Your task to perform on an android device: turn off javascript in the chrome app Image 0: 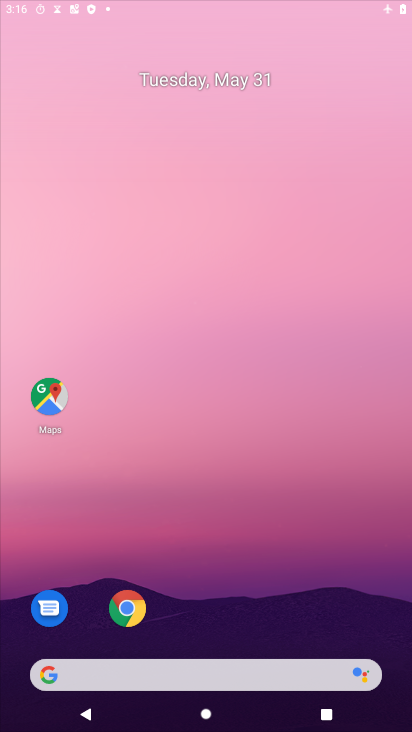
Step 0: click (401, 224)
Your task to perform on an android device: turn off javascript in the chrome app Image 1: 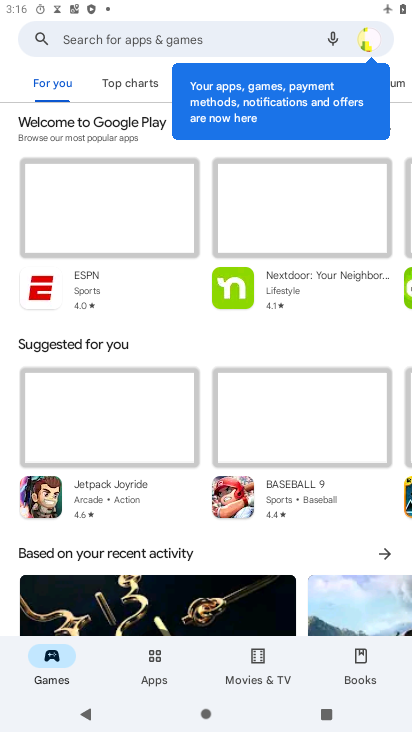
Step 1: press home button
Your task to perform on an android device: turn off javascript in the chrome app Image 2: 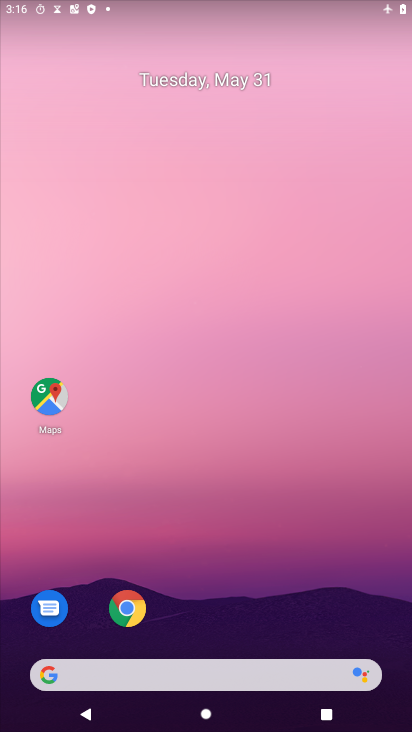
Step 2: drag from (210, 649) to (225, 167)
Your task to perform on an android device: turn off javascript in the chrome app Image 3: 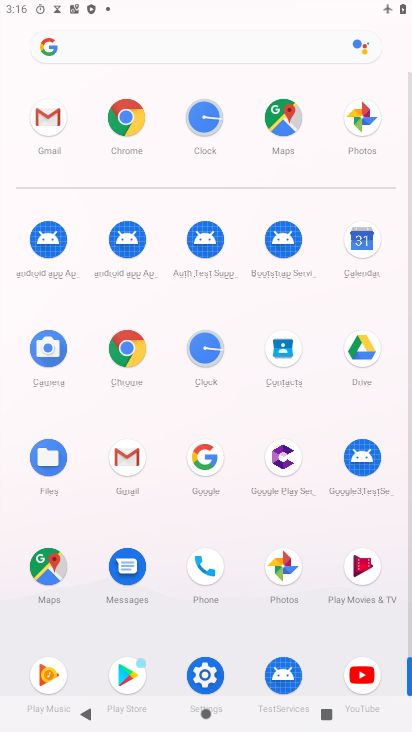
Step 3: click (131, 353)
Your task to perform on an android device: turn off javascript in the chrome app Image 4: 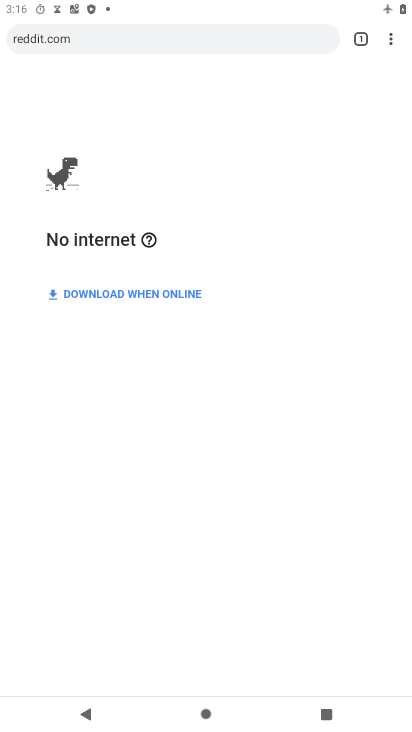
Step 4: click (393, 41)
Your task to perform on an android device: turn off javascript in the chrome app Image 5: 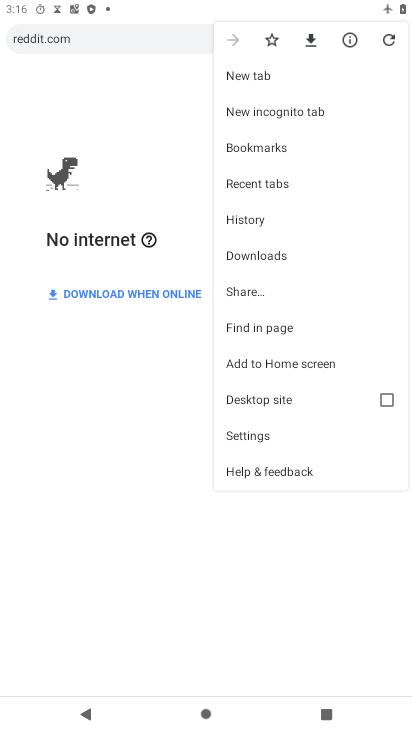
Step 5: click (260, 434)
Your task to perform on an android device: turn off javascript in the chrome app Image 6: 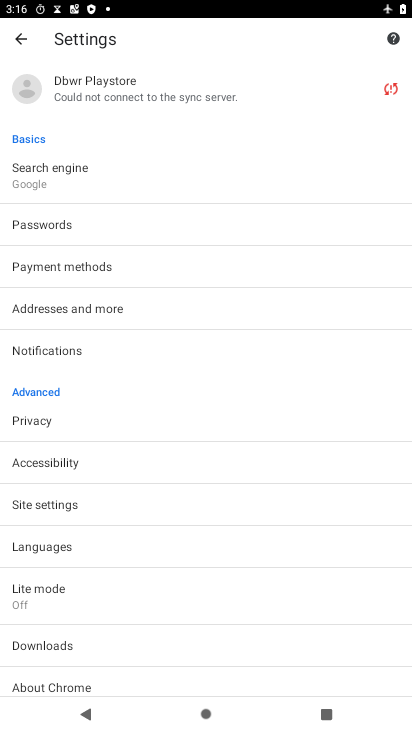
Step 6: click (73, 502)
Your task to perform on an android device: turn off javascript in the chrome app Image 7: 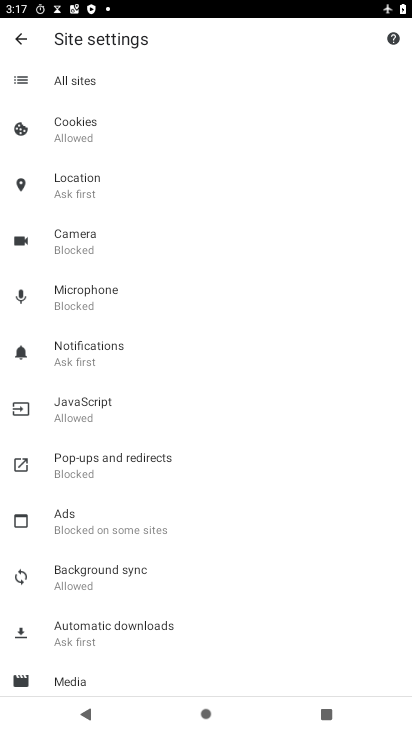
Step 7: click (112, 419)
Your task to perform on an android device: turn off javascript in the chrome app Image 8: 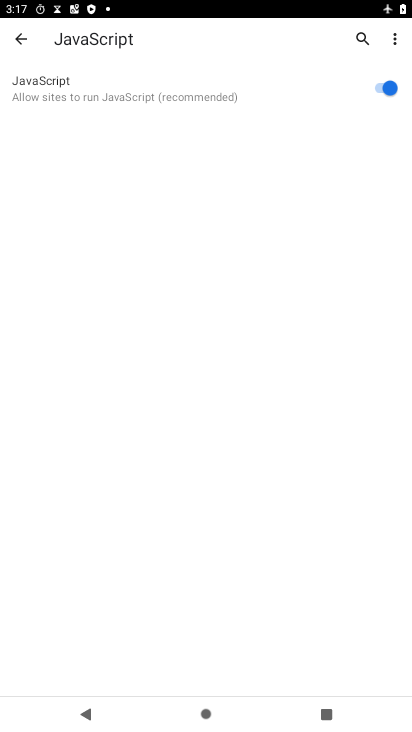
Step 8: click (364, 80)
Your task to perform on an android device: turn off javascript in the chrome app Image 9: 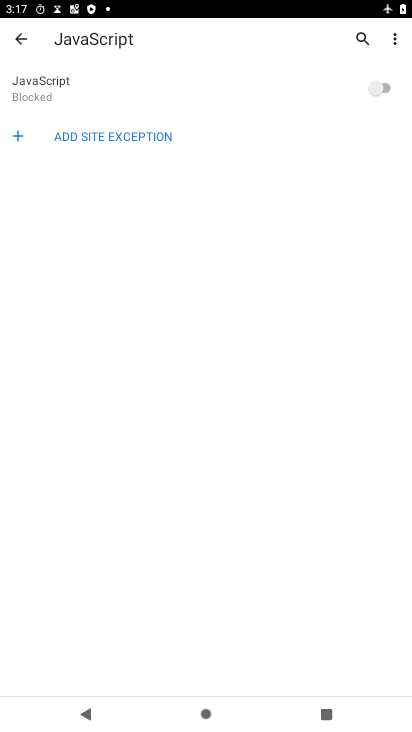
Step 9: task complete